Your task to perform on an android device: toggle javascript in the chrome app Image 0: 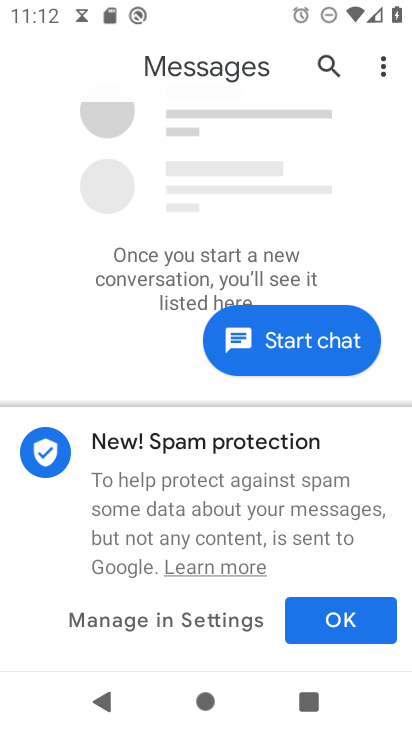
Step 0: press home button
Your task to perform on an android device: toggle javascript in the chrome app Image 1: 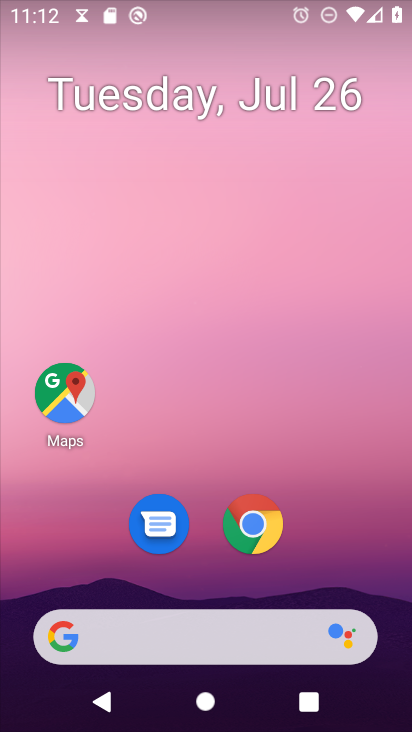
Step 1: click (254, 524)
Your task to perform on an android device: toggle javascript in the chrome app Image 2: 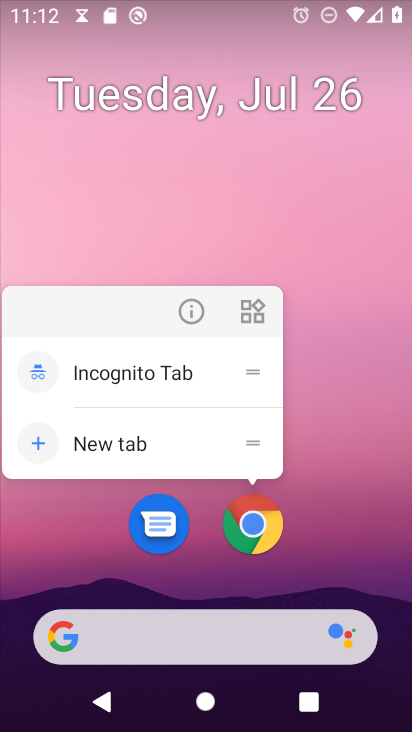
Step 2: click (258, 535)
Your task to perform on an android device: toggle javascript in the chrome app Image 3: 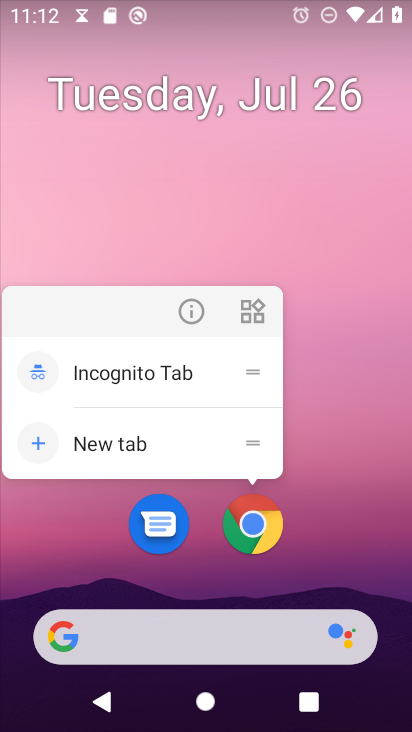
Step 3: click (263, 522)
Your task to perform on an android device: toggle javascript in the chrome app Image 4: 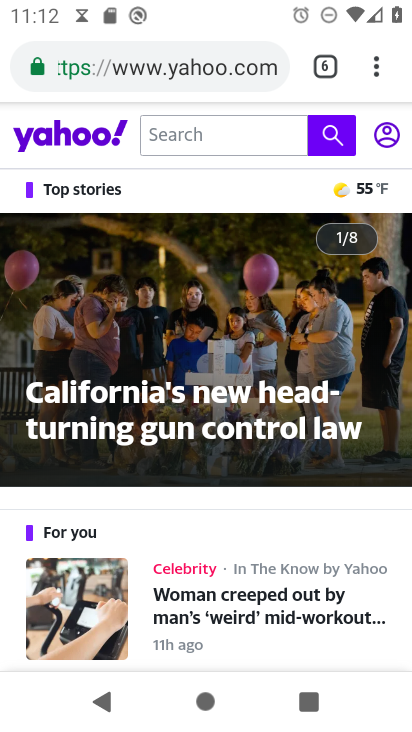
Step 4: click (370, 65)
Your task to perform on an android device: toggle javascript in the chrome app Image 5: 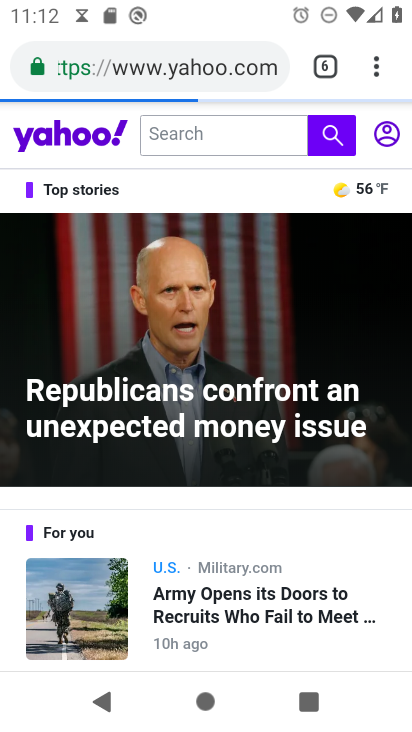
Step 5: drag from (378, 67) to (233, 520)
Your task to perform on an android device: toggle javascript in the chrome app Image 6: 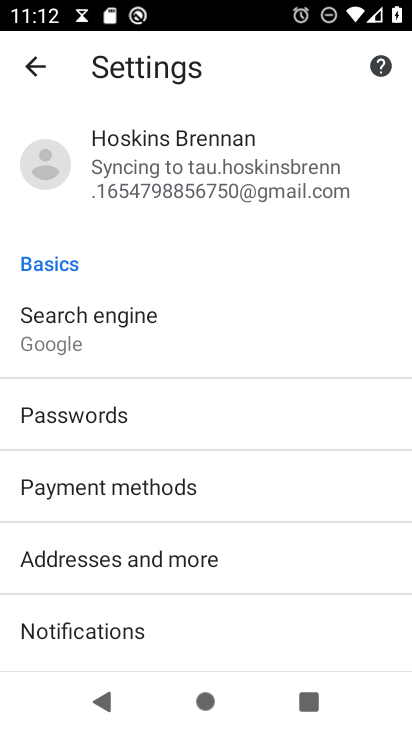
Step 6: drag from (217, 619) to (295, 193)
Your task to perform on an android device: toggle javascript in the chrome app Image 7: 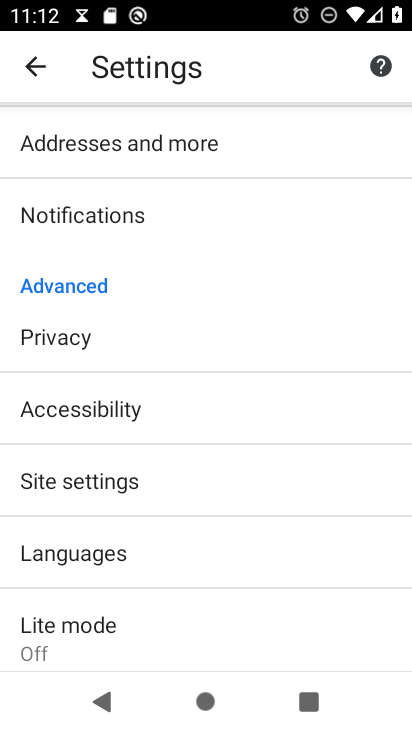
Step 7: click (105, 489)
Your task to perform on an android device: toggle javascript in the chrome app Image 8: 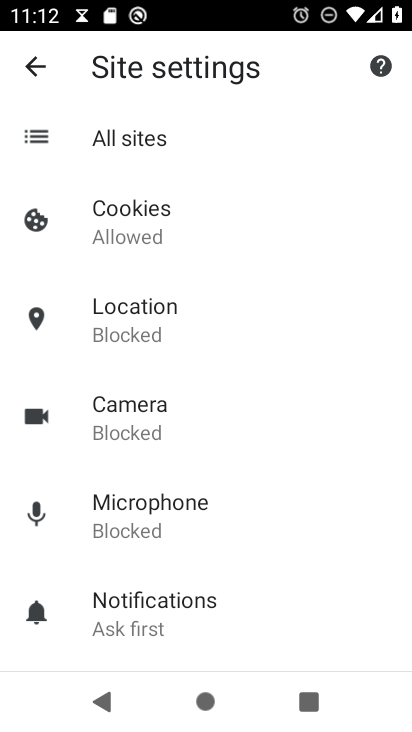
Step 8: drag from (268, 561) to (299, 178)
Your task to perform on an android device: toggle javascript in the chrome app Image 9: 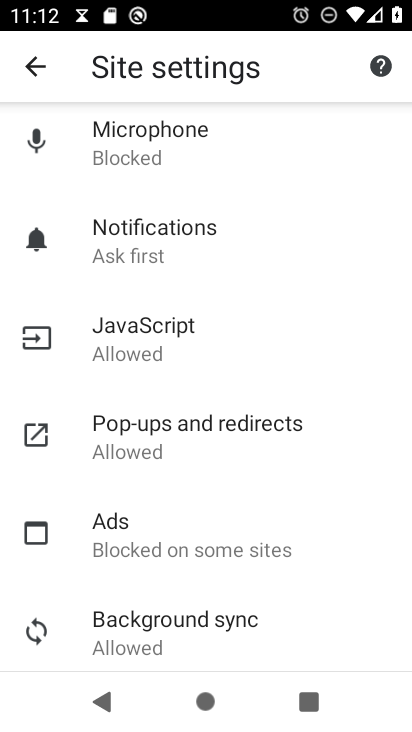
Step 9: click (164, 418)
Your task to perform on an android device: toggle javascript in the chrome app Image 10: 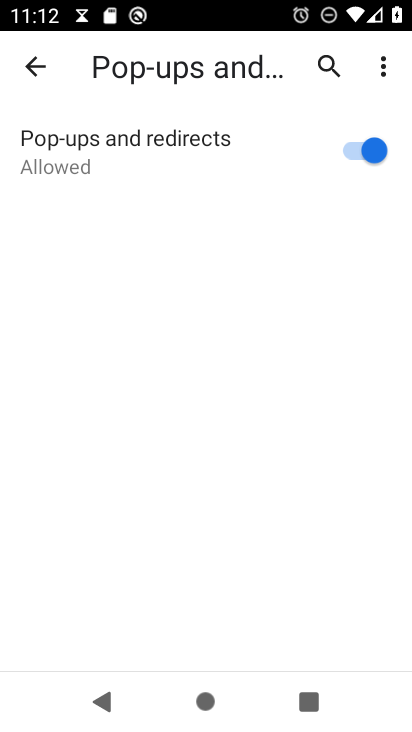
Step 10: click (29, 60)
Your task to perform on an android device: toggle javascript in the chrome app Image 11: 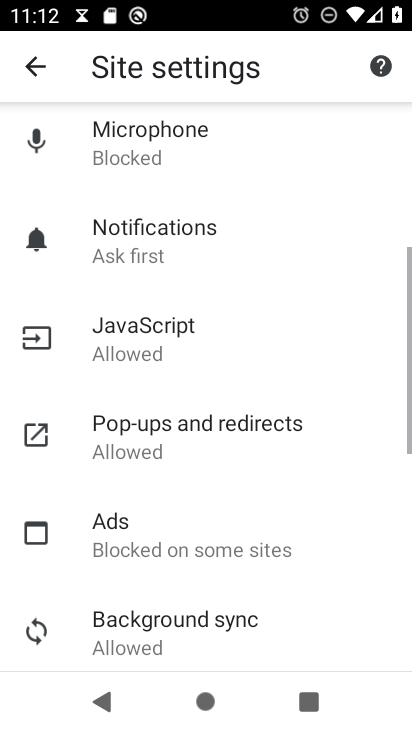
Step 11: click (148, 355)
Your task to perform on an android device: toggle javascript in the chrome app Image 12: 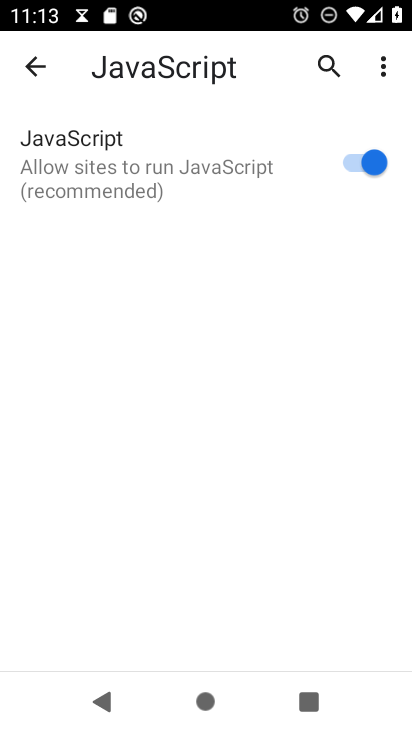
Step 12: click (361, 163)
Your task to perform on an android device: toggle javascript in the chrome app Image 13: 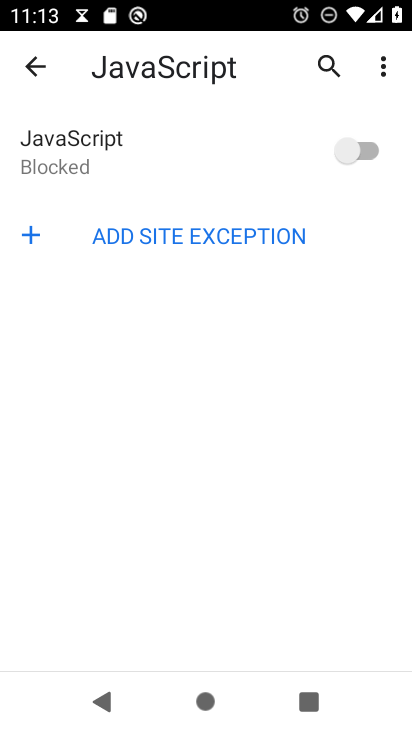
Step 13: task complete